Your task to perform on an android device: Go to accessibility settings Image 0: 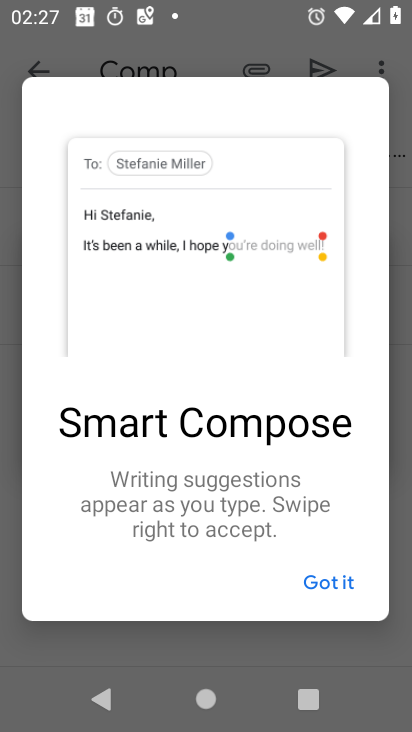
Step 0: press home button
Your task to perform on an android device: Go to accessibility settings Image 1: 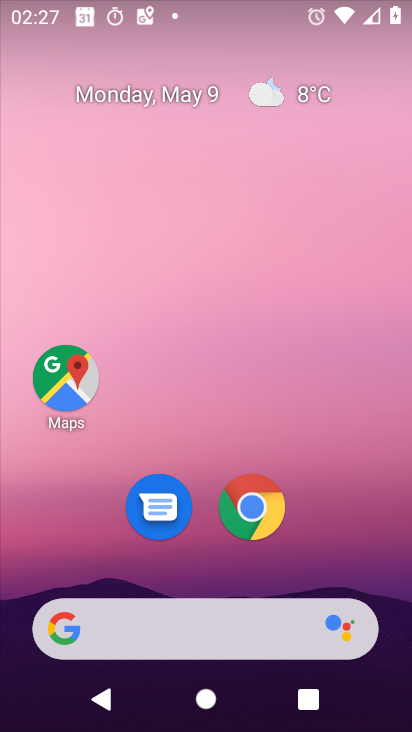
Step 1: drag from (215, 724) to (197, 204)
Your task to perform on an android device: Go to accessibility settings Image 2: 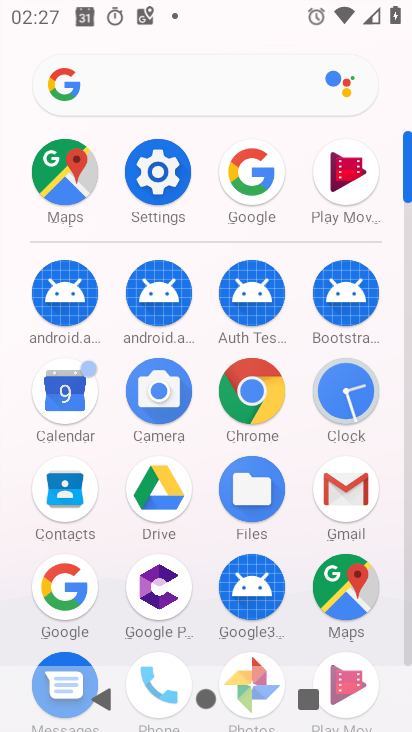
Step 2: click (163, 173)
Your task to perform on an android device: Go to accessibility settings Image 3: 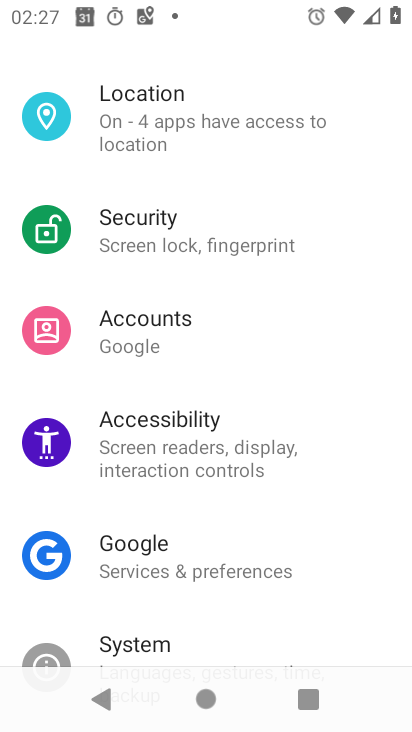
Step 3: drag from (170, 615) to (165, 415)
Your task to perform on an android device: Go to accessibility settings Image 4: 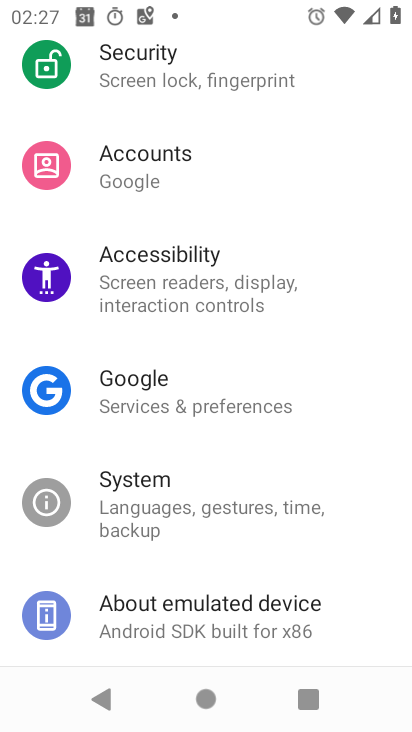
Step 4: click (138, 263)
Your task to perform on an android device: Go to accessibility settings Image 5: 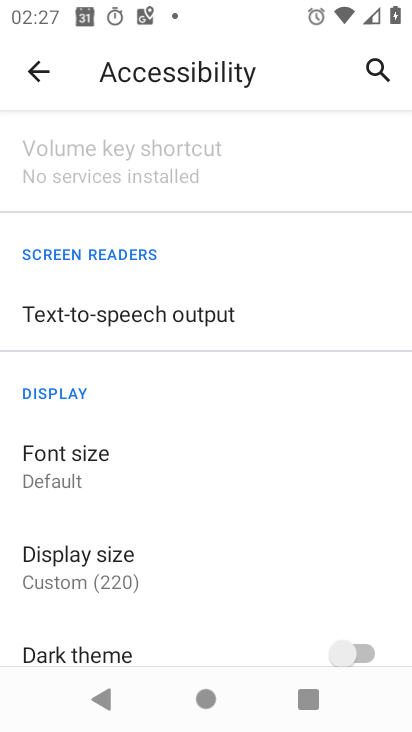
Step 5: task complete